Your task to perform on an android device: toggle airplane mode Image 0: 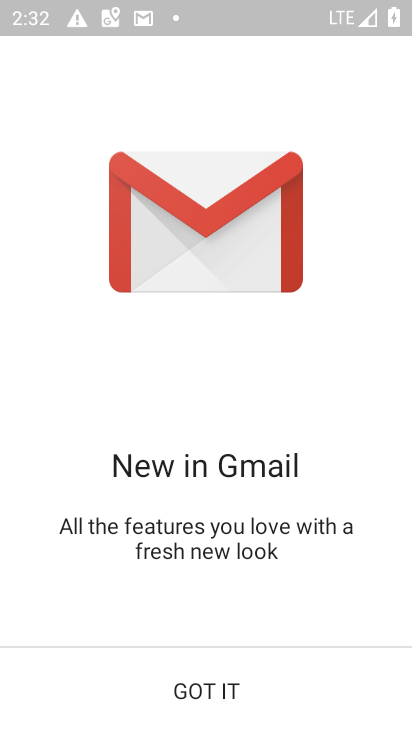
Step 0: press home button
Your task to perform on an android device: toggle airplane mode Image 1: 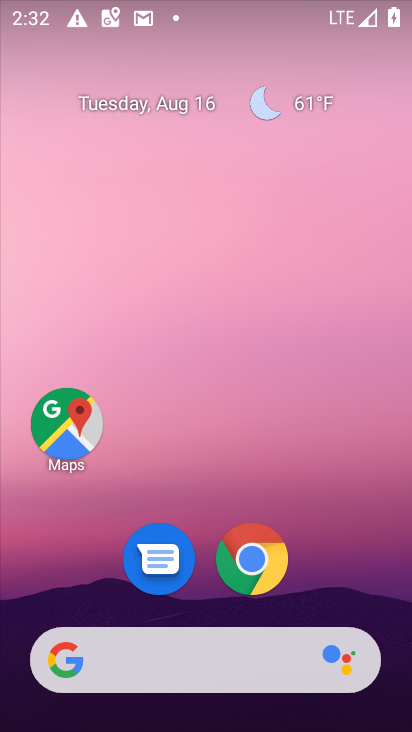
Step 1: drag from (394, 611) to (361, 75)
Your task to perform on an android device: toggle airplane mode Image 2: 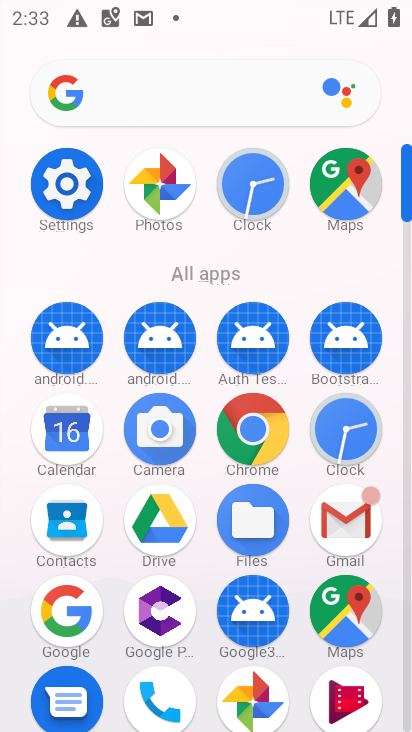
Step 2: click (408, 700)
Your task to perform on an android device: toggle airplane mode Image 3: 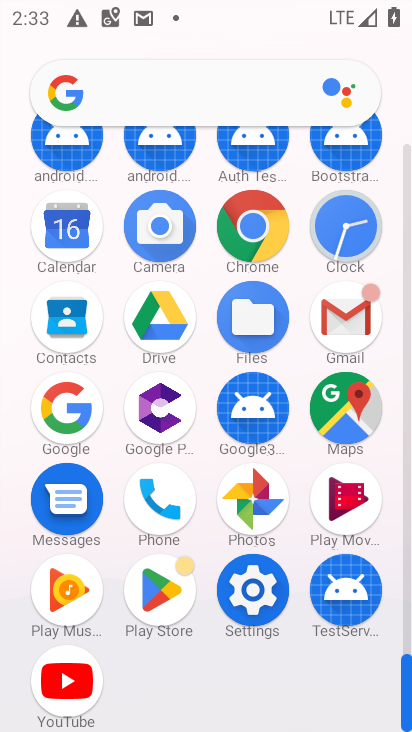
Step 3: click (253, 592)
Your task to perform on an android device: toggle airplane mode Image 4: 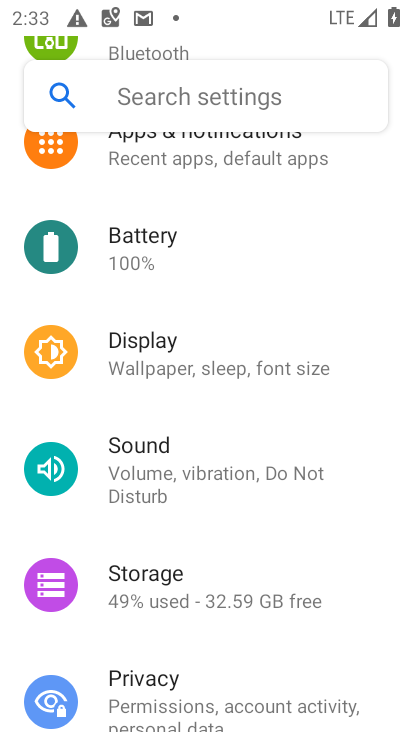
Step 4: drag from (318, 233) to (298, 559)
Your task to perform on an android device: toggle airplane mode Image 5: 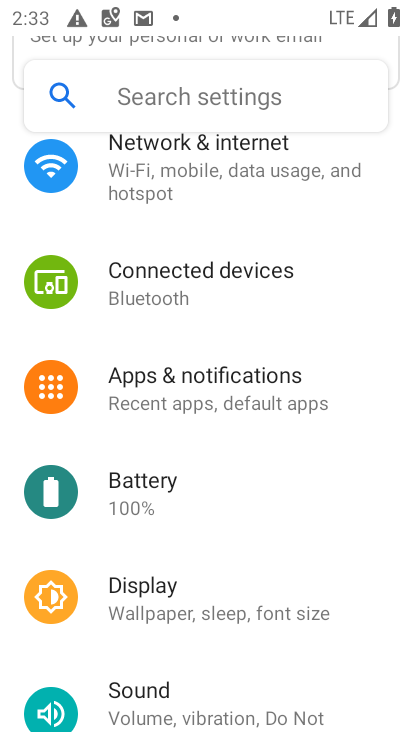
Step 5: drag from (315, 229) to (312, 408)
Your task to perform on an android device: toggle airplane mode Image 6: 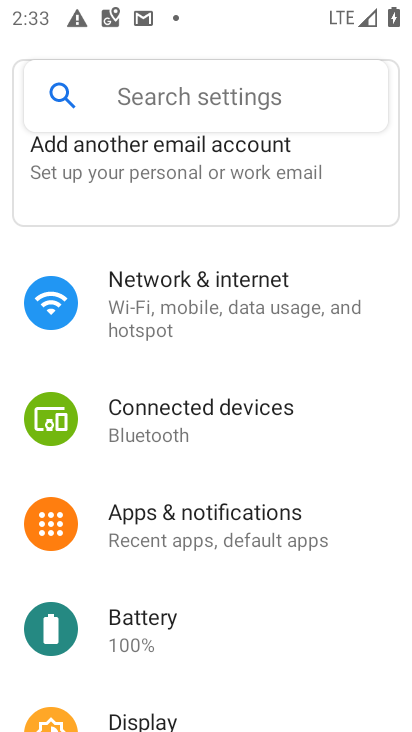
Step 6: click (175, 289)
Your task to perform on an android device: toggle airplane mode Image 7: 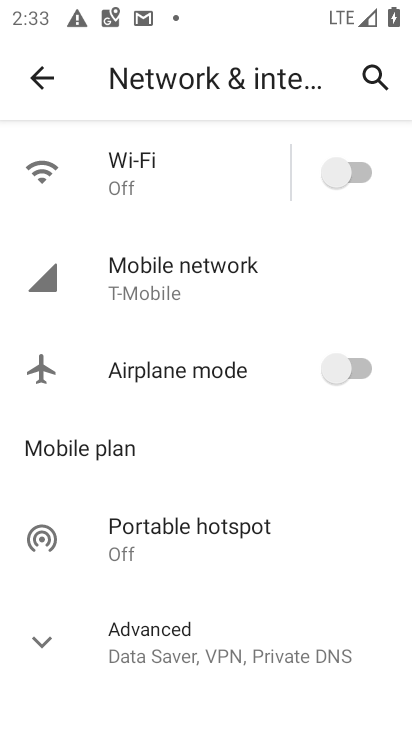
Step 7: click (364, 369)
Your task to perform on an android device: toggle airplane mode Image 8: 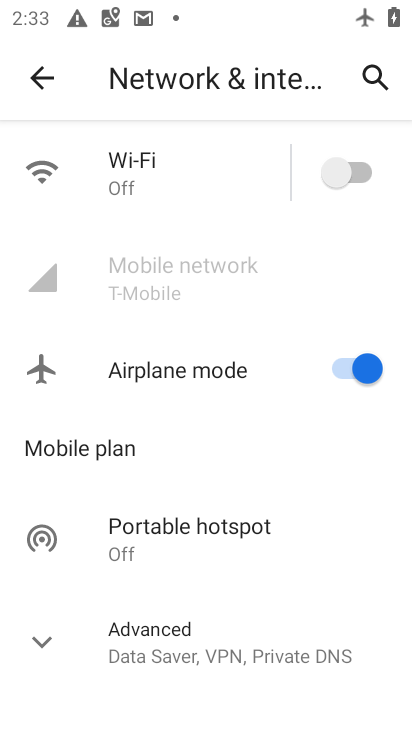
Step 8: task complete